Your task to perform on an android device: Go to wifi settings Image 0: 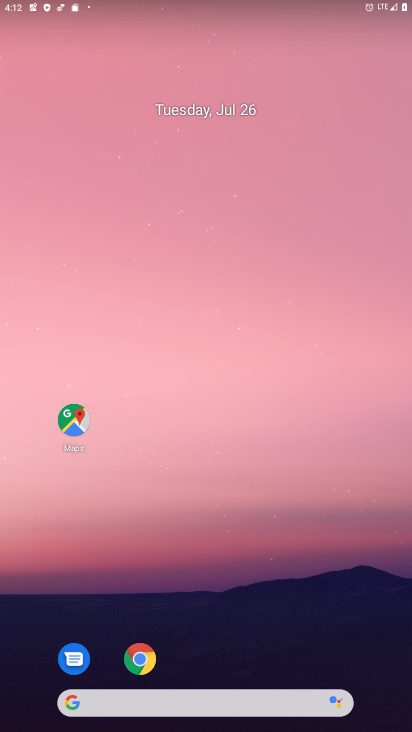
Step 0: press home button
Your task to perform on an android device: Go to wifi settings Image 1: 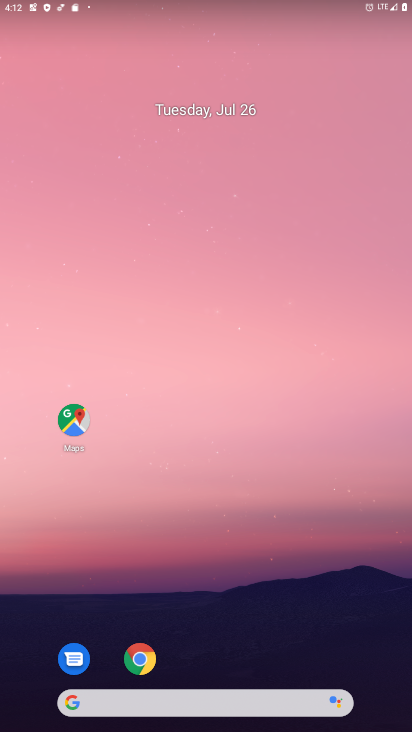
Step 1: drag from (256, 487) to (214, 35)
Your task to perform on an android device: Go to wifi settings Image 2: 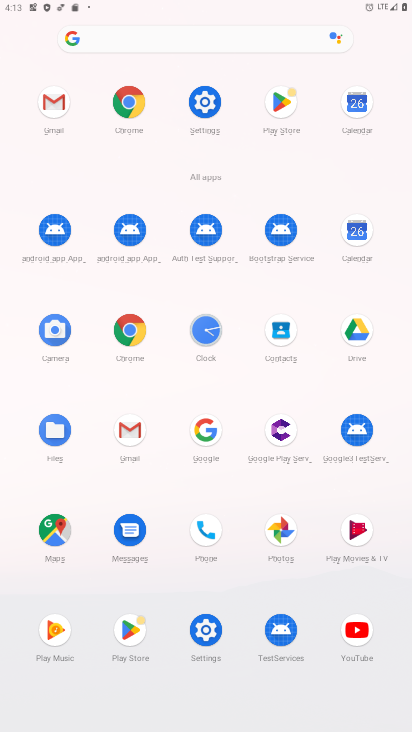
Step 2: click (213, 104)
Your task to perform on an android device: Go to wifi settings Image 3: 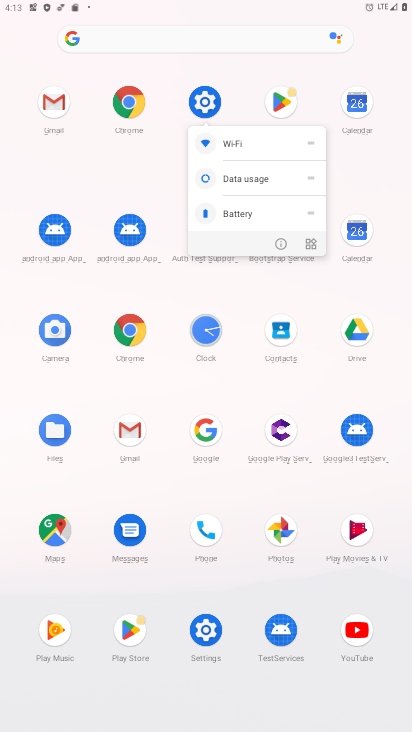
Step 3: click (206, 111)
Your task to perform on an android device: Go to wifi settings Image 4: 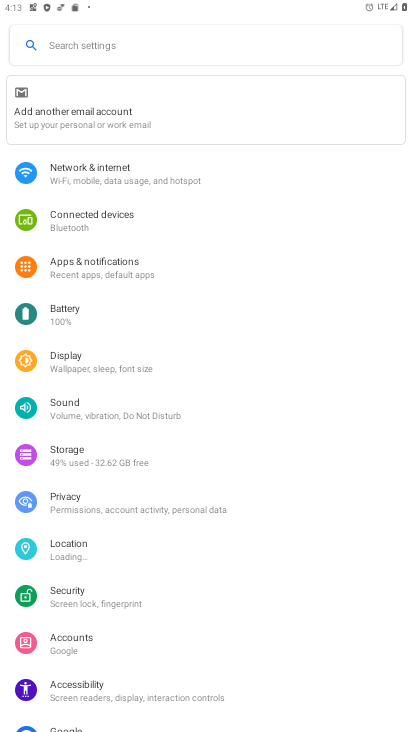
Step 4: click (103, 179)
Your task to perform on an android device: Go to wifi settings Image 5: 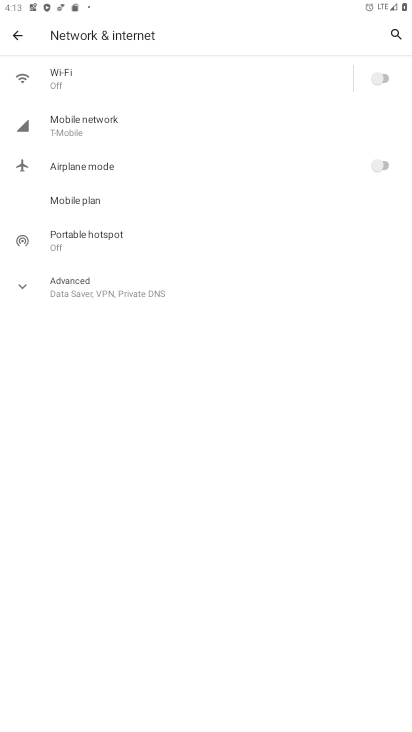
Step 5: click (372, 79)
Your task to perform on an android device: Go to wifi settings Image 6: 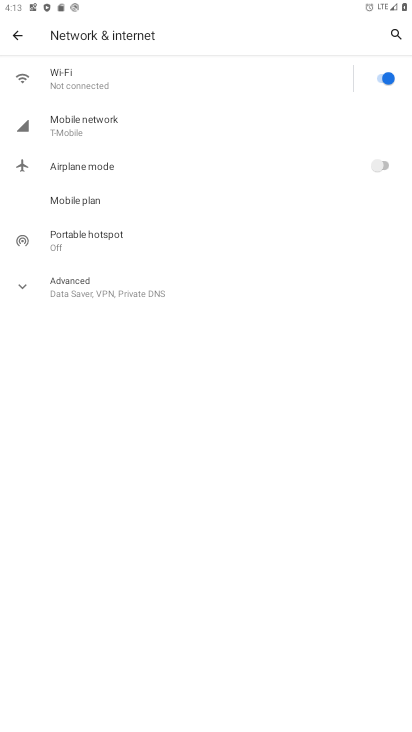
Step 6: click (98, 77)
Your task to perform on an android device: Go to wifi settings Image 7: 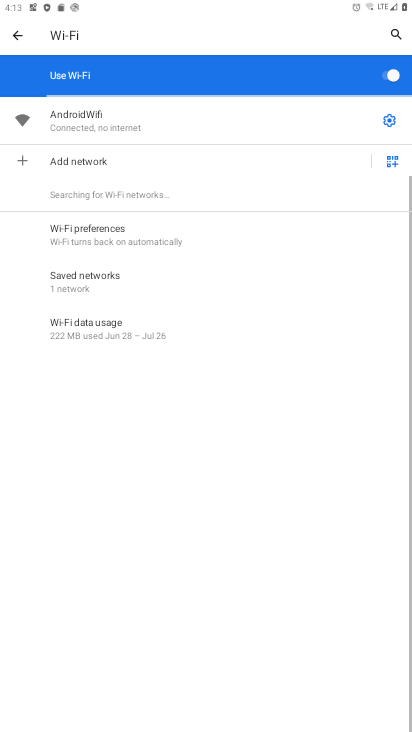
Step 7: task complete